Your task to perform on an android device: Search for Italian restaurants on Maps Image 0: 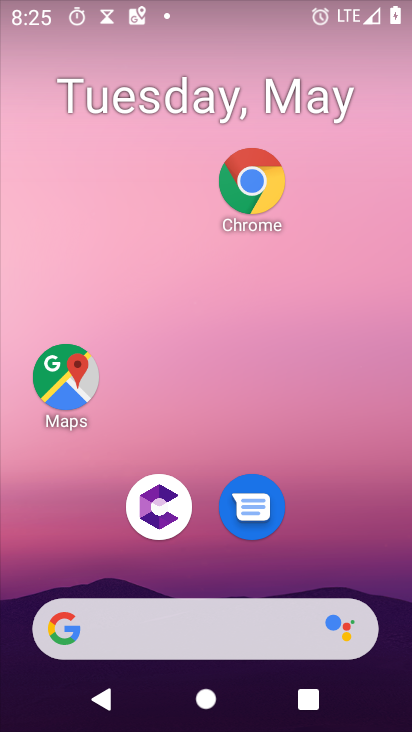
Step 0: click (70, 399)
Your task to perform on an android device: Search for Italian restaurants on Maps Image 1: 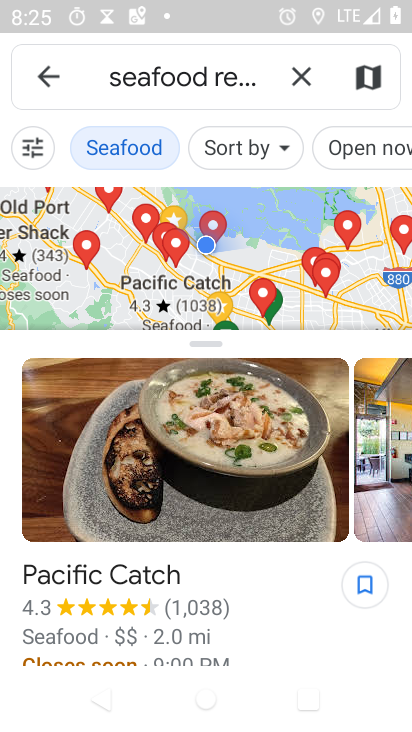
Step 1: click (309, 71)
Your task to perform on an android device: Search for Italian restaurants on Maps Image 2: 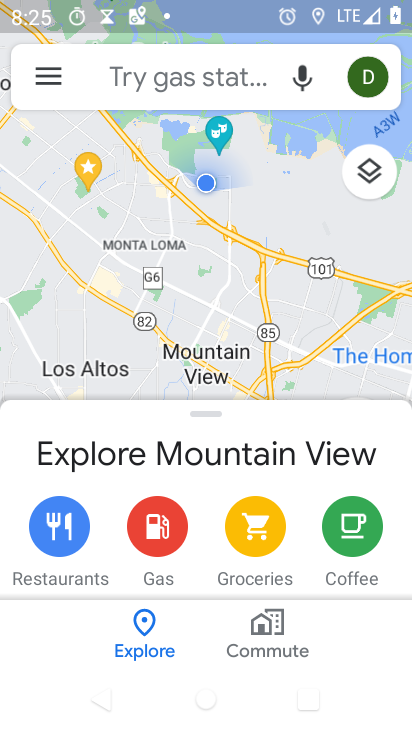
Step 2: click (222, 88)
Your task to perform on an android device: Search for Italian restaurants on Maps Image 3: 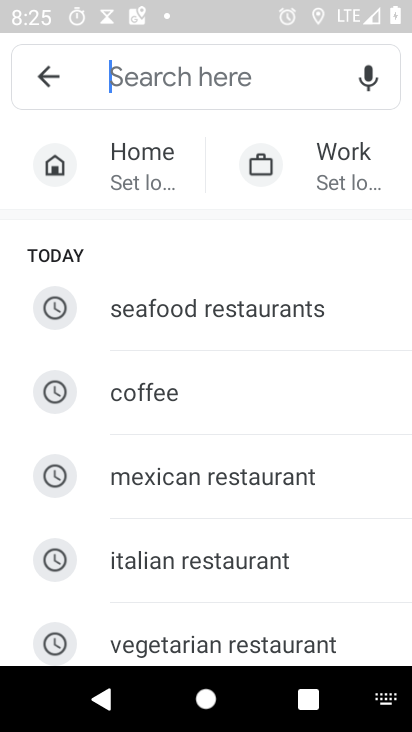
Step 3: type "italian restaurants"
Your task to perform on an android device: Search for Italian restaurants on Maps Image 4: 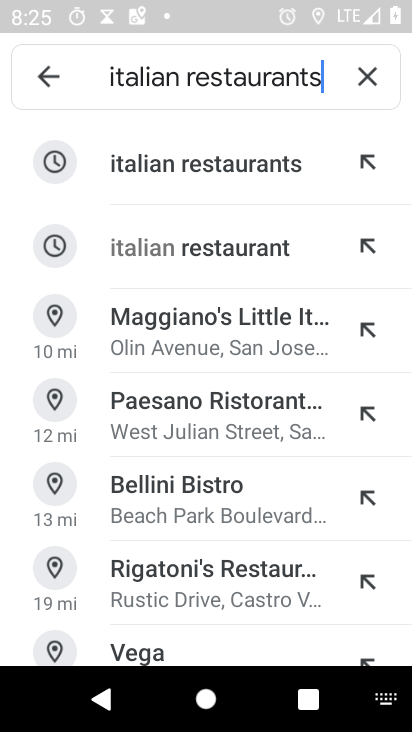
Step 4: click (224, 177)
Your task to perform on an android device: Search for Italian restaurants on Maps Image 5: 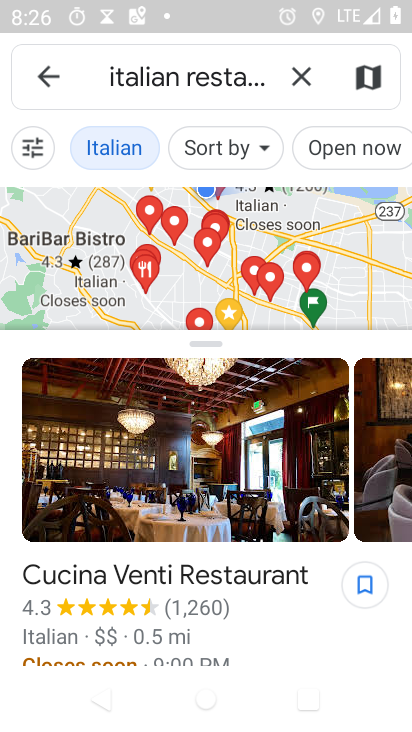
Step 5: task complete